Your task to perform on an android device: stop showing notifications on the lock screen Image 0: 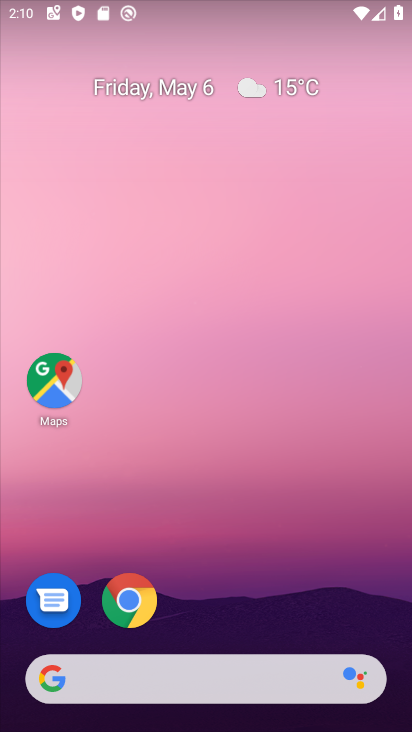
Step 0: drag from (340, 599) to (305, 0)
Your task to perform on an android device: stop showing notifications on the lock screen Image 1: 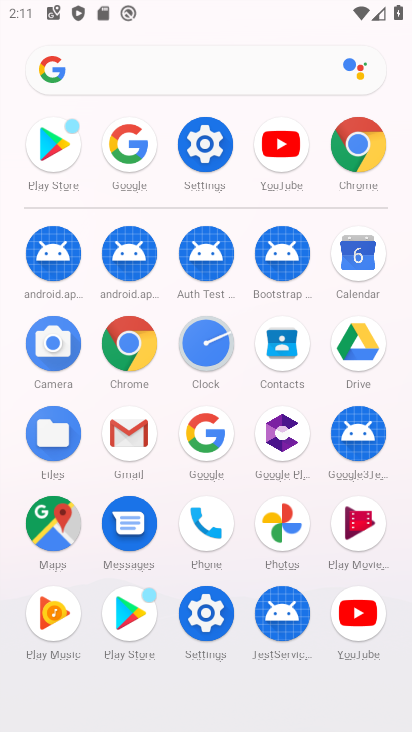
Step 1: click (206, 166)
Your task to perform on an android device: stop showing notifications on the lock screen Image 2: 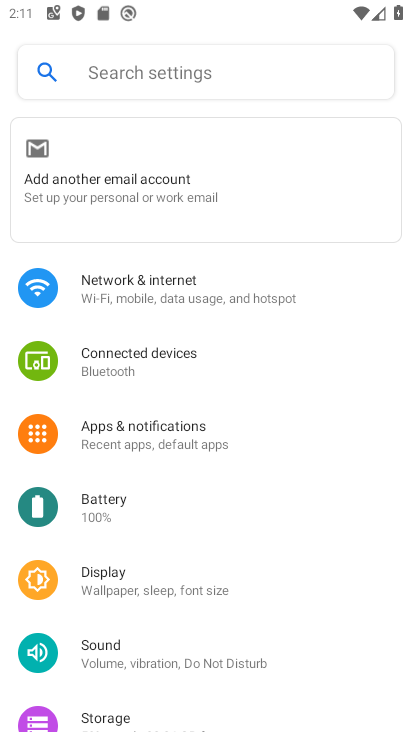
Step 2: click (212, 452)
Your task to perform on an android device: stop showing notifications on the lock screen Image 3: 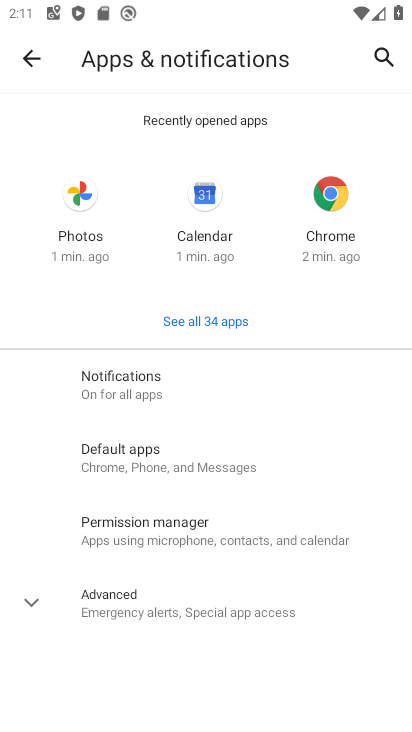
Step 3: click (197, 393)
Your task to perform on an android device: stop showing notifications on the lock screen Image 4: 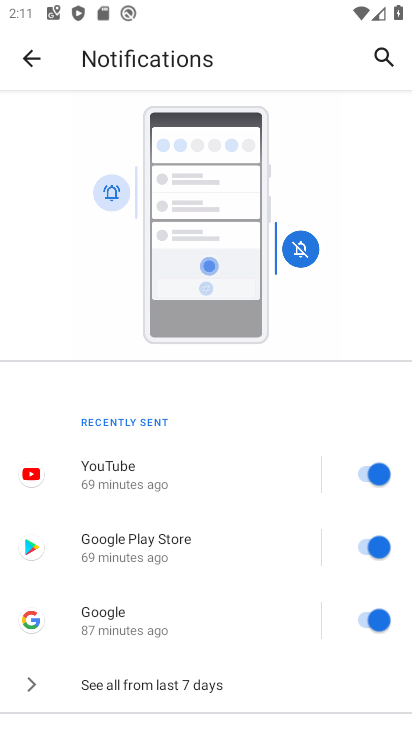
Step 4: drag from (91, 658) to (162, 114)
Your task to perform on an android device: stop showing notifications on the lock screen Image 5: 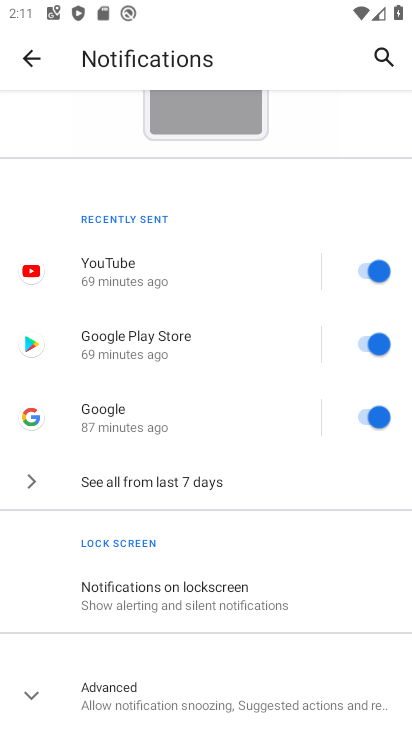
Step 5: click (215, 601)
Your task to perform on an android device: stop showing notifications on the lock screen Image 6: 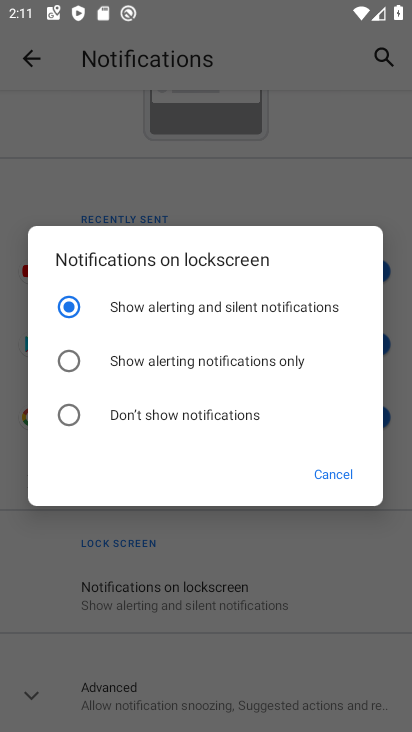
Step 6: click (116, 427)
Your task to perform on an android device: stop showing notifications on the lock screen Image 7: 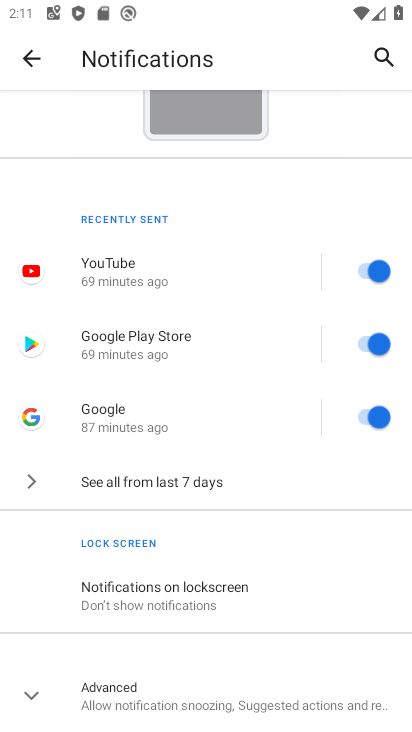
Step 7: task complete